Your task to perform on an android device: turn on translation in the chrome app Image 0: 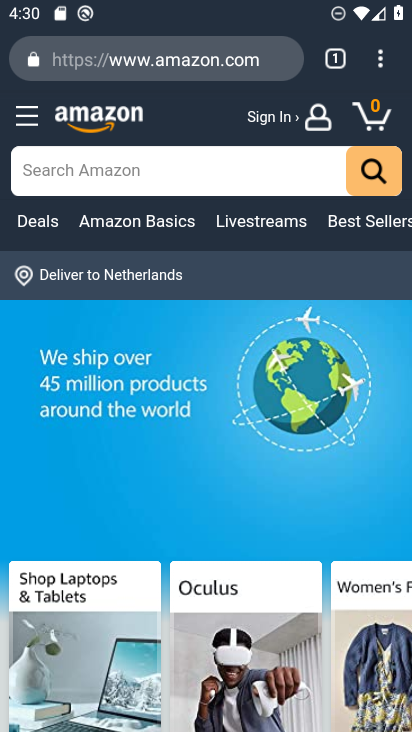
Step 0: drag from (381, 57) to (184, 631)
Your task to perform on an android device: turn on translation in the chrome app Image 1: 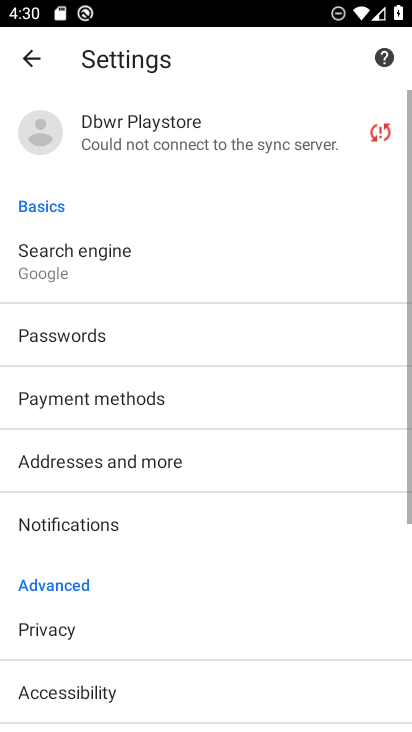
Step 1: drag from (164, 603) to (220, 72)
Your task to perform on an android device: turn on translation in the chrome app Image 2: 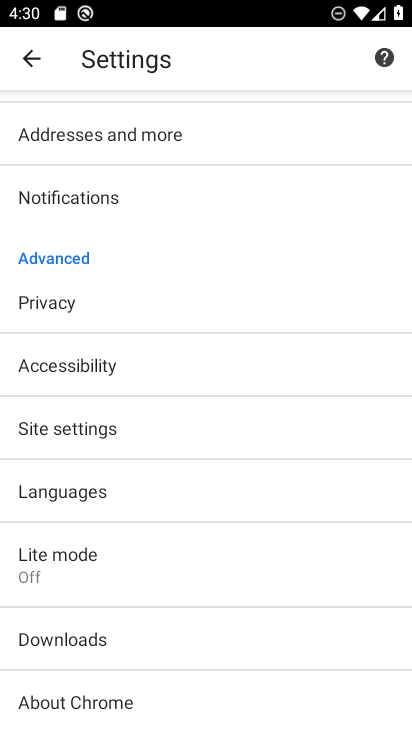
Step 2: click (124, 485)
Your task to perform on an android device: turn on translation in the chrome app Image 3: 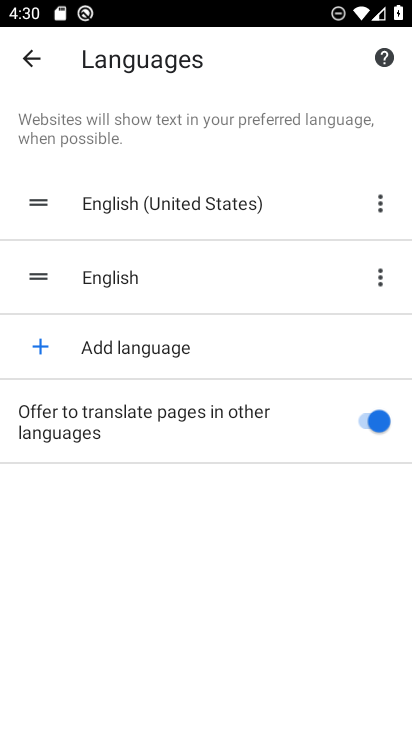
Step 3: task complete